Your task to perform on an android device: open app "WhatsApp Messenger" (install if not already installed) Image 0: 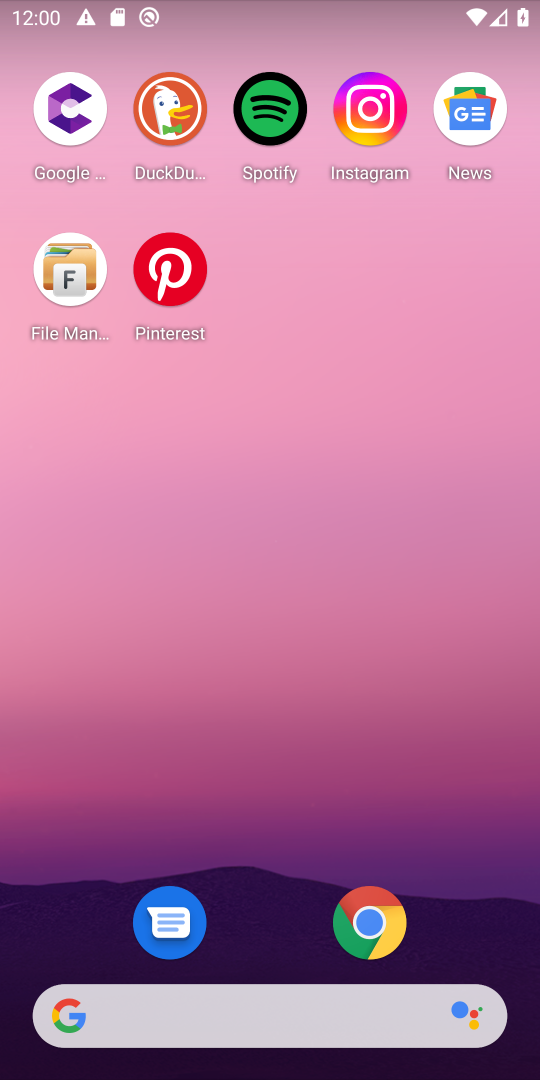
Step 0: drag from (228, 833) to (316, 148)
Your task to perform on an android device: open app "WhatsApp Messenger" (install if not already installed) Image 1: 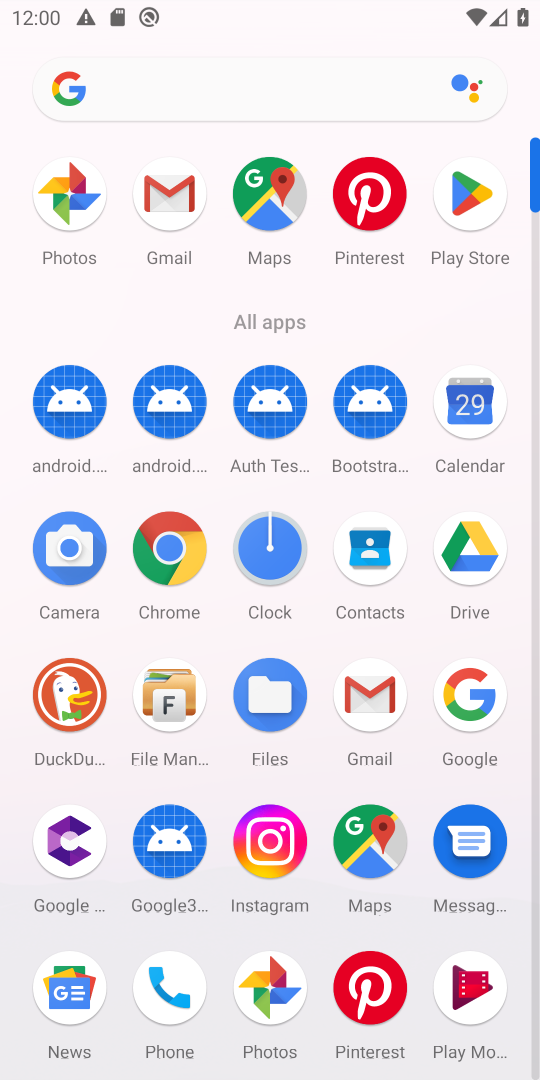
Step 1: click (477, 196)
Your task to perform on an android device: open app "WhatsApp Messenger" (install if not already installed) Image 2: 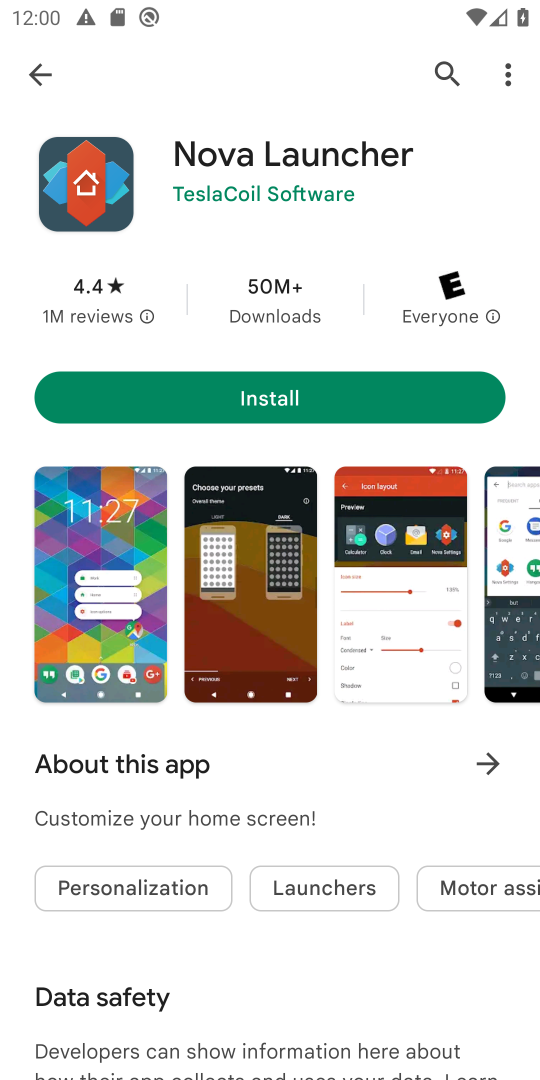
Step 2: click (432, 76)
Your task to perform on an android device: open app "WhatsApp Messenger" (install if not already installed) Image 3: 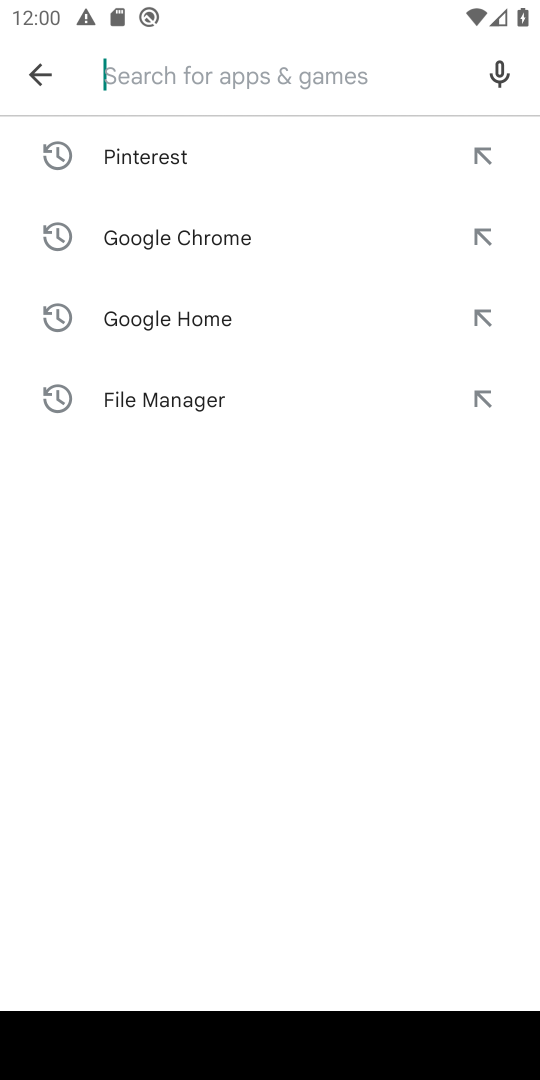
Step 3: type "WhatsAppp Messenger"
Your task to perform on an android device: open app "WhatsApp Messenger" (install if not already installed) Image 4: 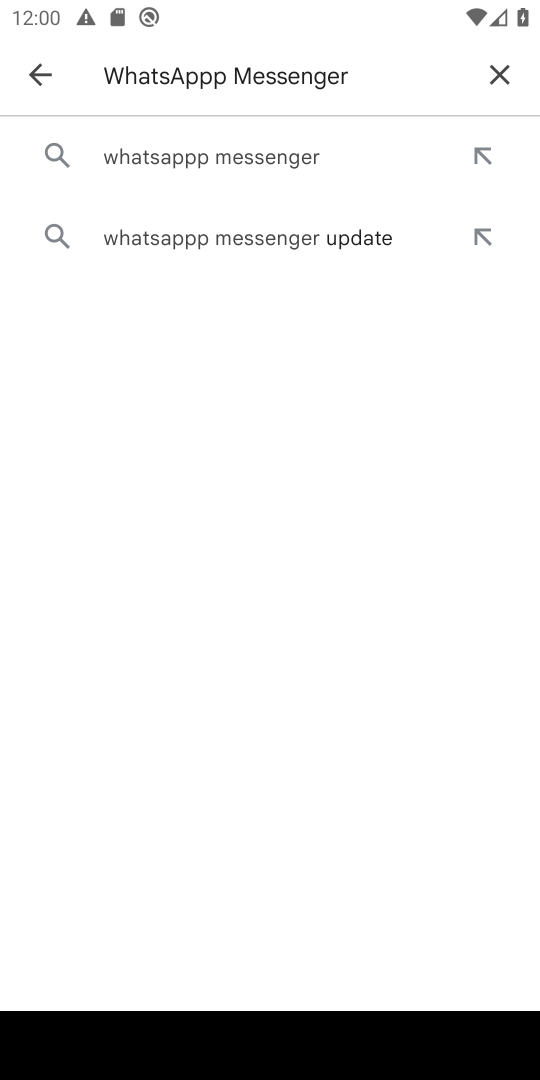
Step 4: press enter
Your task to perform on an android device: open app "WhatsApp Messenger" (install if not already installed) Image 5: 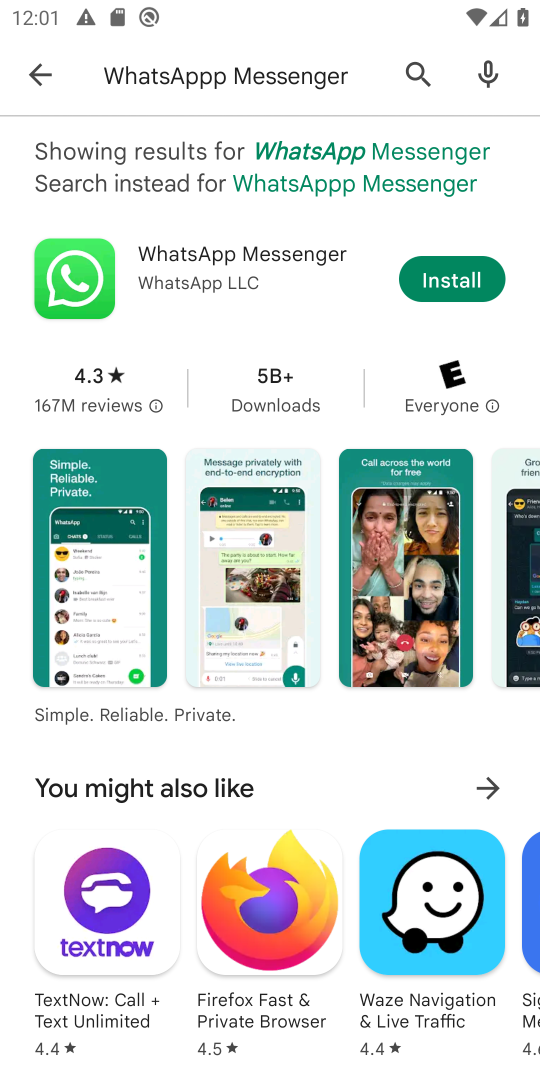
Step 5: click (481, 285)
Your task to perform on an android device: open app "WhatsApp Messenger" (install if not already installed) Image 6: 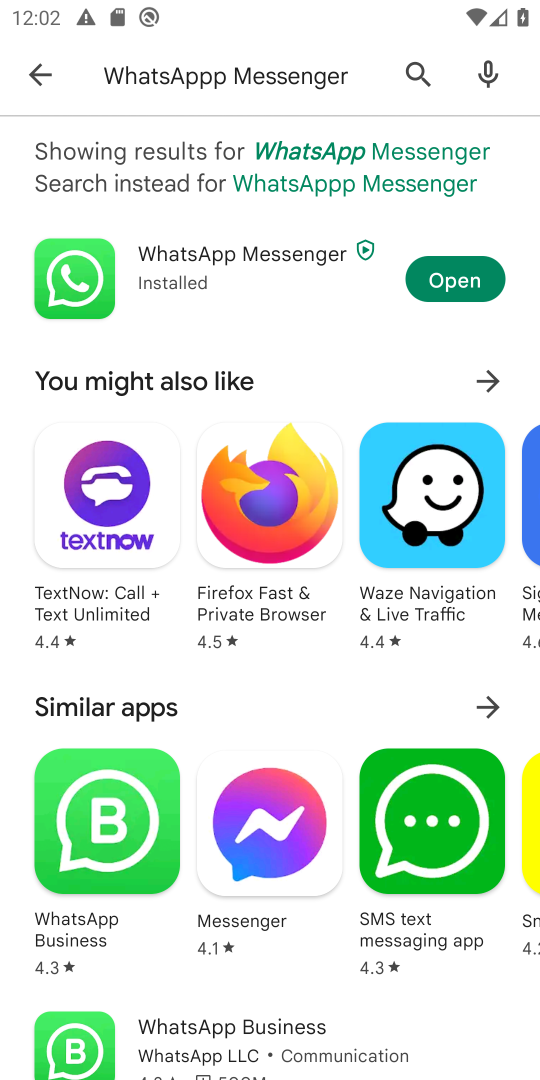
Step 6: click (447, 279)
Your task to perform on an android device: open app "WhatsApp Messenger" (install if not already installed) Image 7: 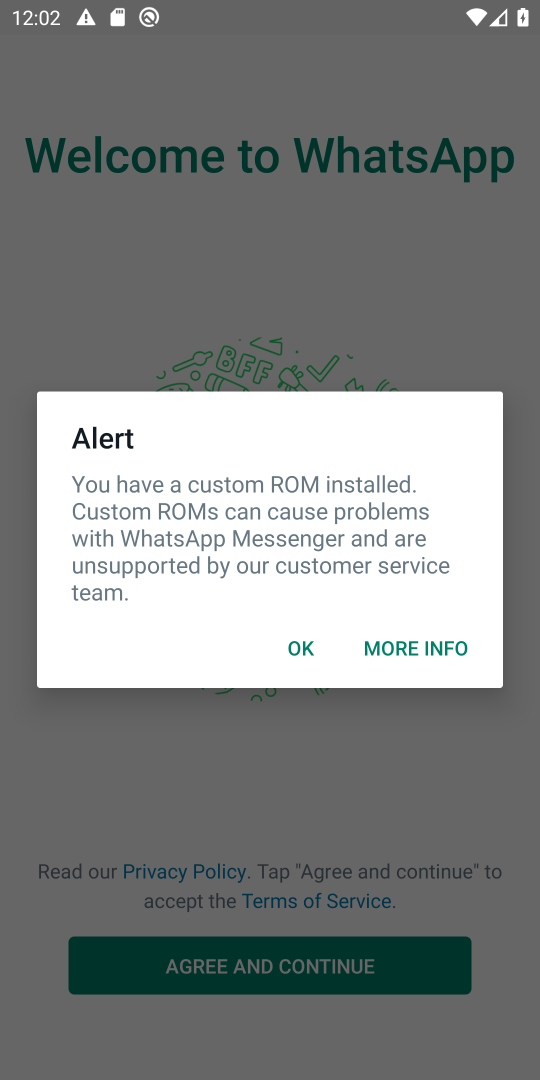
Step 7: task complete